Your task to perform on an android device: Open privacy settings Image 0: 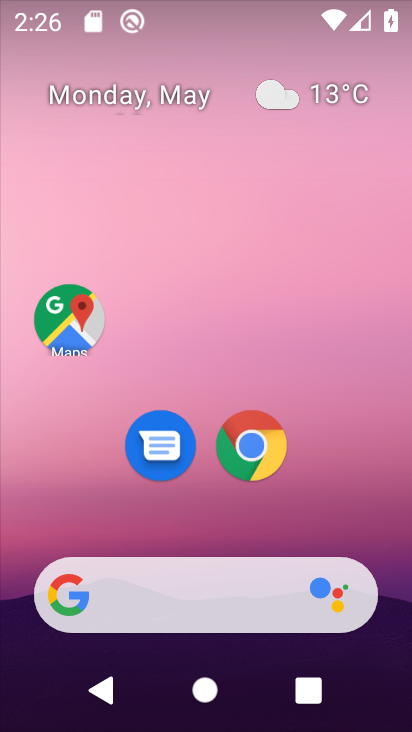
Step 0: click (247, 449)
Your task to perform on an android device: Open privacy settings Image 1: 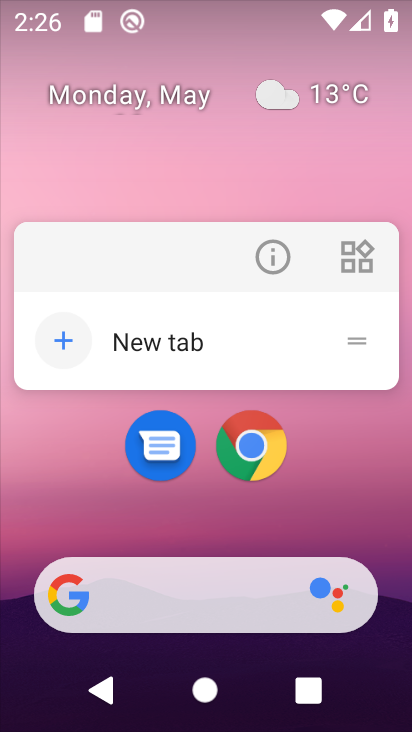
Step 1: click (250, 464)
Your task to perform on an android device: Open privacy settings Image 2: 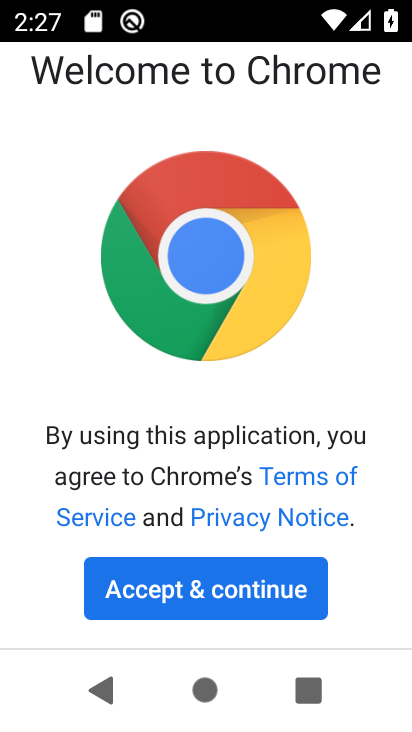
Step 2: click (270, 567)
Your task to perform on an android device: Open privacy settings Image 3: 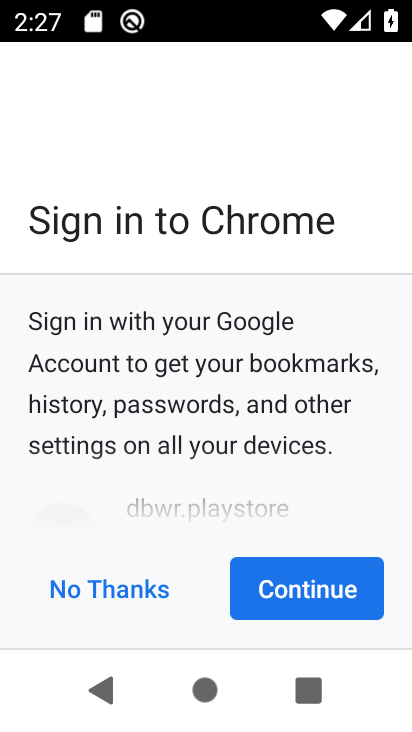
Step 3: click (296, 590)
Your task to perform on an android device: Open privacy settings Image 4: 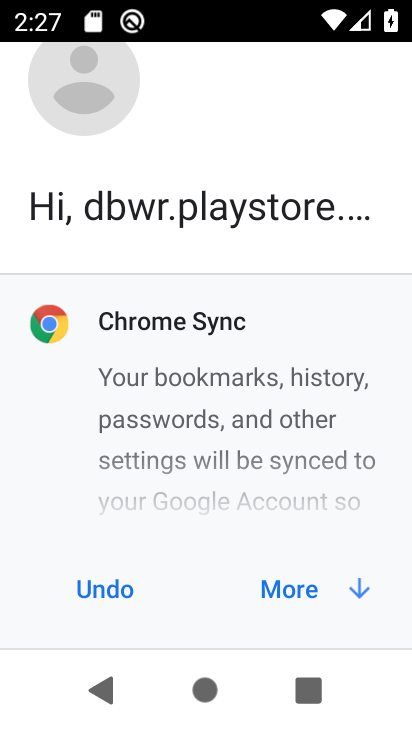
Step 4: click (341, 607)
Your task to perform on an android device: Open privacy settings Image 5: 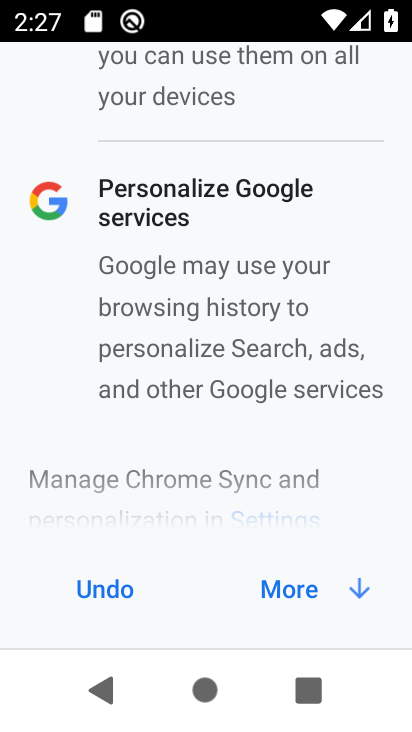
Step 5: click (328, 613)
Your task to perform on an android device: Open privacy settings Image 6: 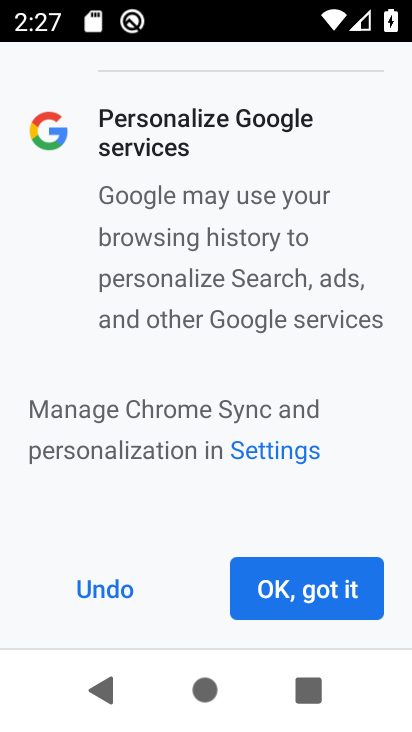
Step 6: click (325, 608)
Your task to perform on an android device: Open privacy settings Image 7: 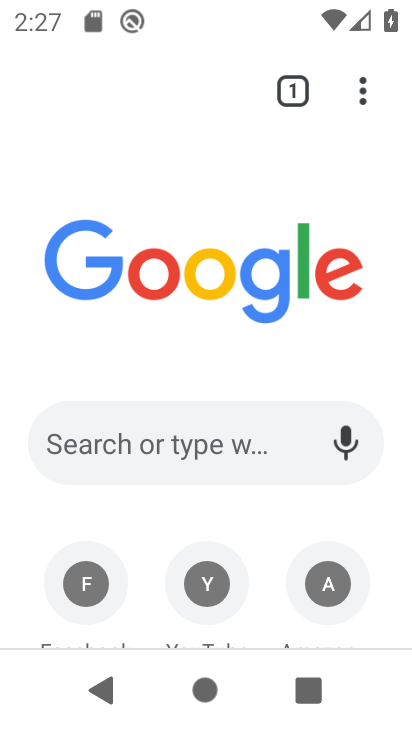
Step 7: drag from (379, 100) to (259, 474)
Your task to perform on an android device: Open privacy settings Image 8: 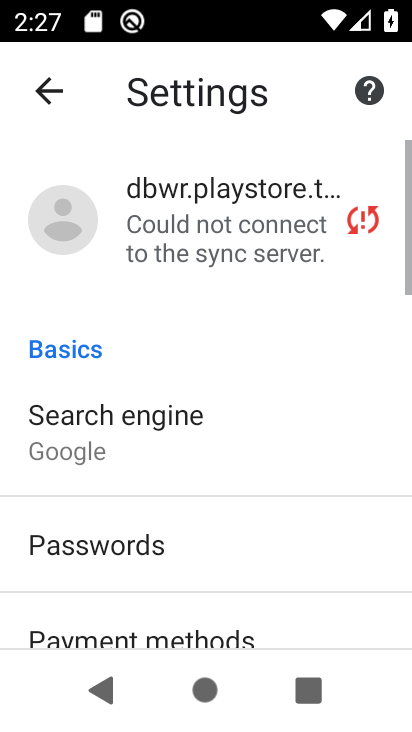
Step 8: drag from (200, 589) to (273, 181)
Your task to perform on an android device: Open privacy settings Image 9: 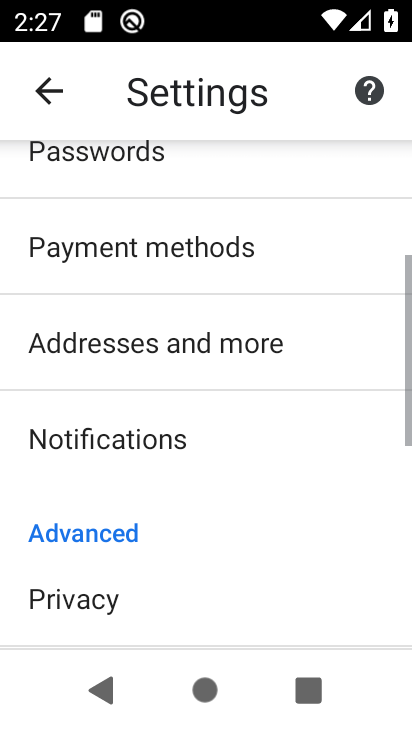
Step 9: drag from (224, 559) to (236, 414)
Your task to perform on an android device: Open privacy settings Image 10: 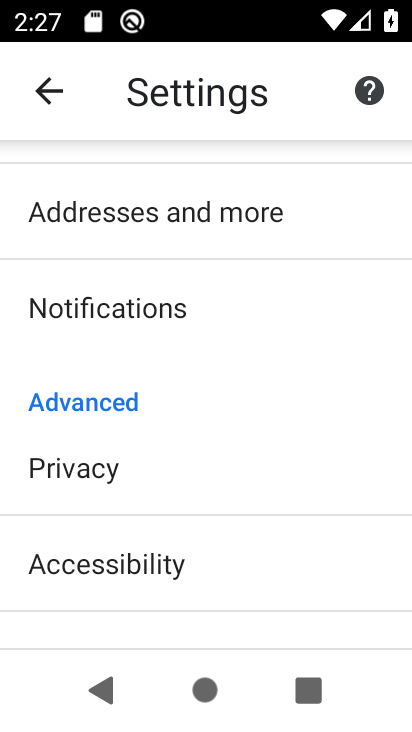
Step 10: click (179, 480)
Your task to perform on an android device: Open privacy settings Image 11: 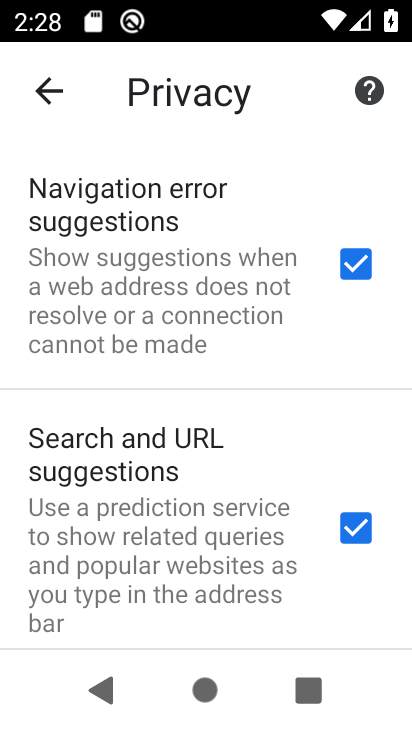
Step 11: task complete